Your task to perform on an android device: manage bookmarks in the chrome app Image 0: 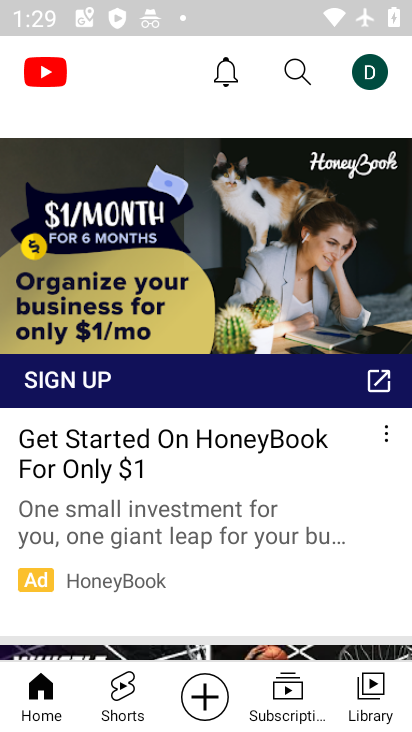
Step 0: press home button
Your task to perform on an android device: manage bookmarks in the chrome app Image 1: 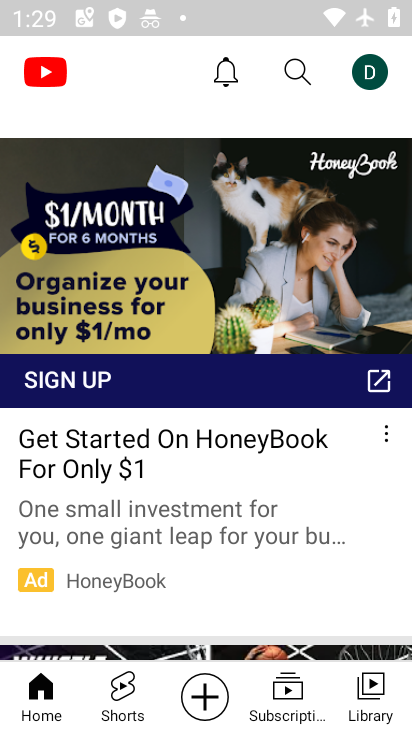
Step 1: press home button
Your task to perform on an android device: manage bookmarks in the chrome app Image 2: 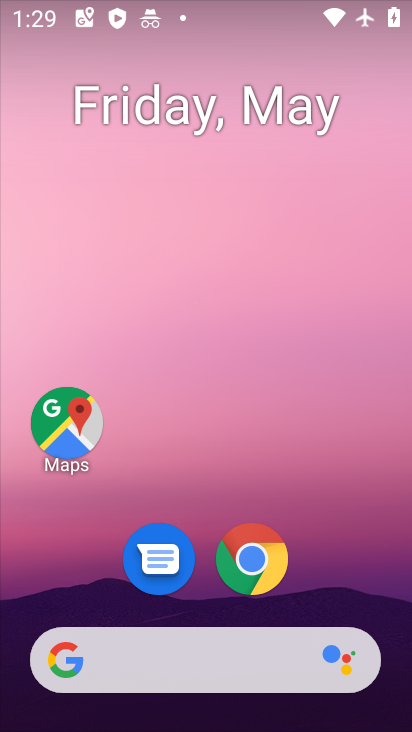
Step 2: click (261, 551)
Your task to perform on an android device: manage bookmarks in the chrome app Image 3: 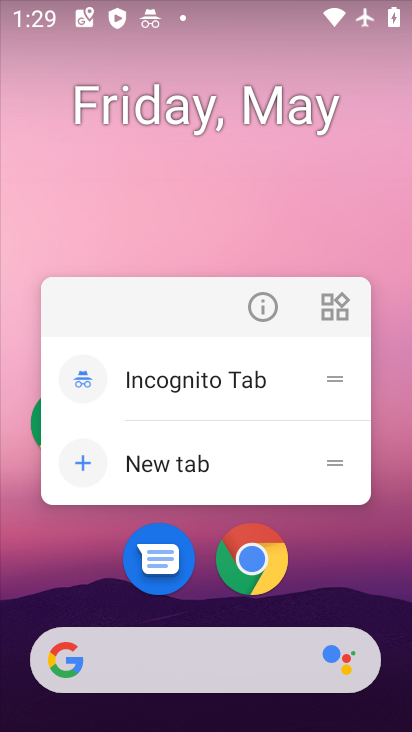
Step 3: click (244, 553)
Your task to perform on an android device: manage bookmarks in the chrome app Image 4: 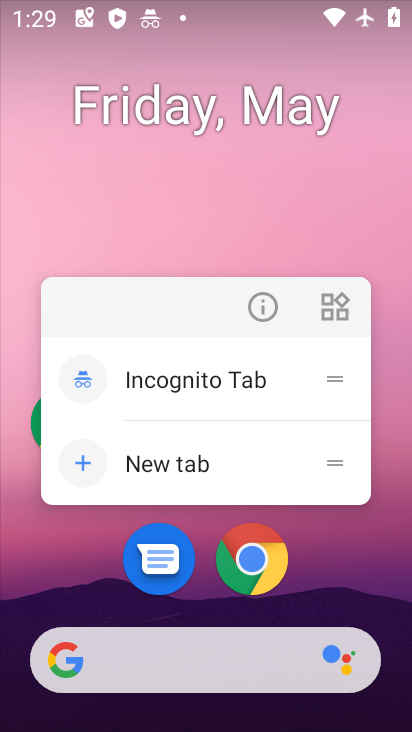
Step 4: click (250, 560)
Your task to perform on an android device: manage bookmarks in the chrome app Image 5: 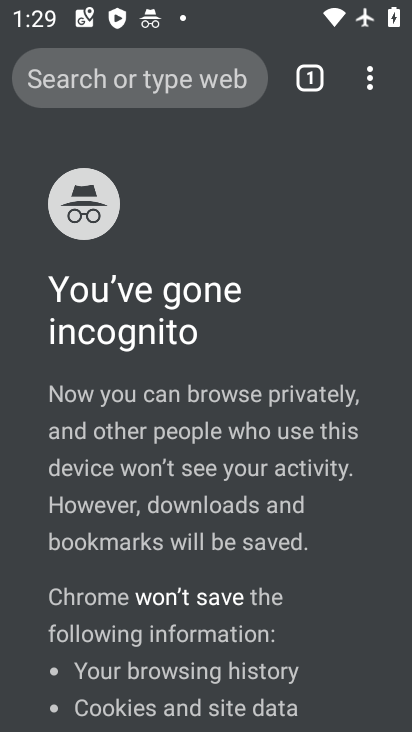
Step 5: drag from (366, 81) to (188, 313)
Your task to perform on an android device: manage bookmarks in the chrome app Image 6: 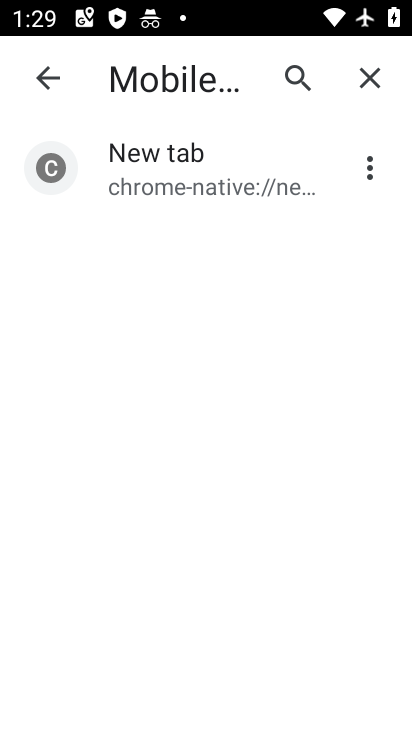
Step 6: click (364, 167)
Your task to perform on an android device: manage bookmarks in the chrome app Image 7: 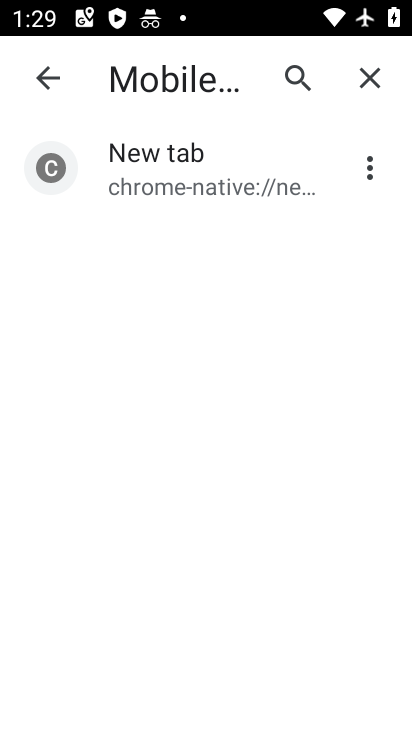
Step 7: click (377, 166)
Your task to perform on an android device: manage bookmarks in the chrome app Image 8: 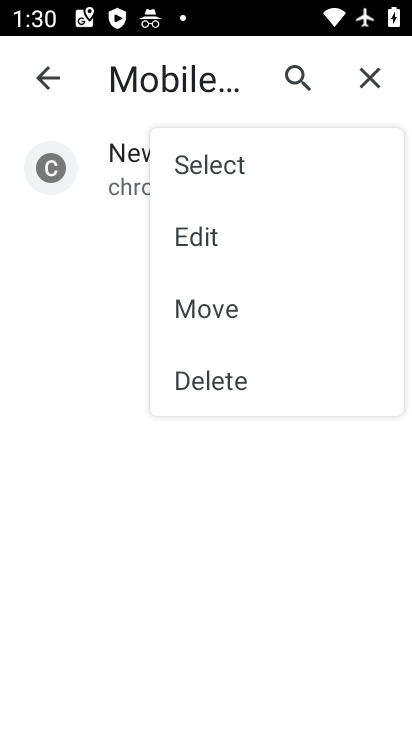
Step 8: click (215, 383)
Your task to perform on an android device: manage bookmarks in the chrome app Image 9: 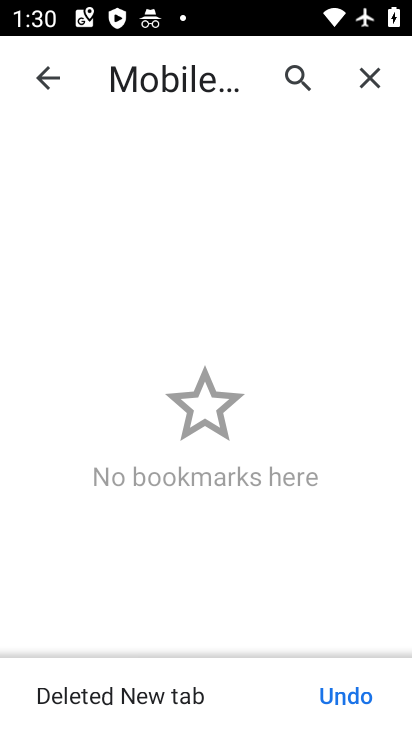
Step 9: task complete